Your task to perform on an android device: Open Google Maps Image 0: 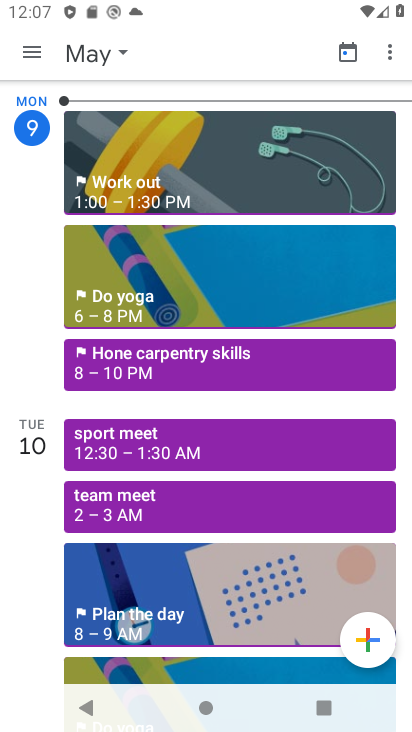
Step 0: press home button
Your task to perform on an android device: Open Google Maps Image 1: 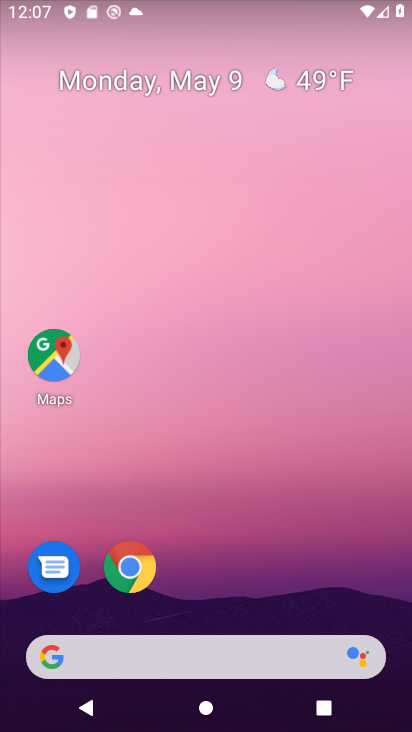
Step 1: drag from (231, 713) to (224, 293)
Your task to perform on an android device: Open Google Maps Image 2: 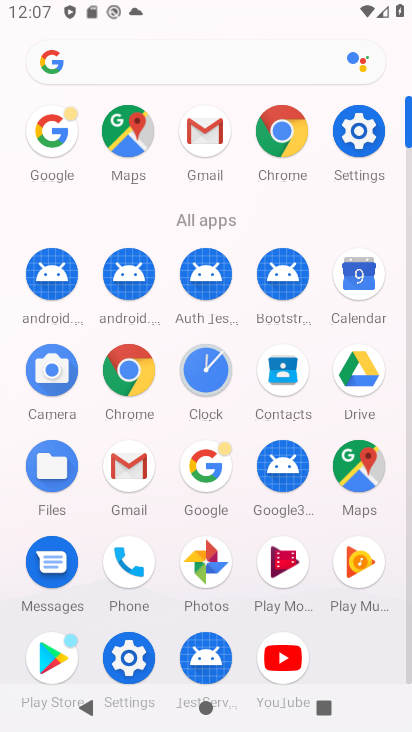
Step 2: click (365, 462)
Your task to perform on an android device: Open Google Maps Image 3: 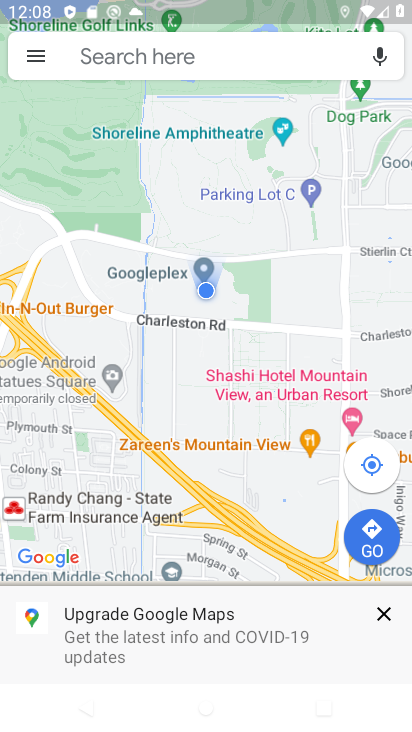
Step 3: task complete